Your task to perform on an android device: Go to calendar. Show me events next week Image 0: 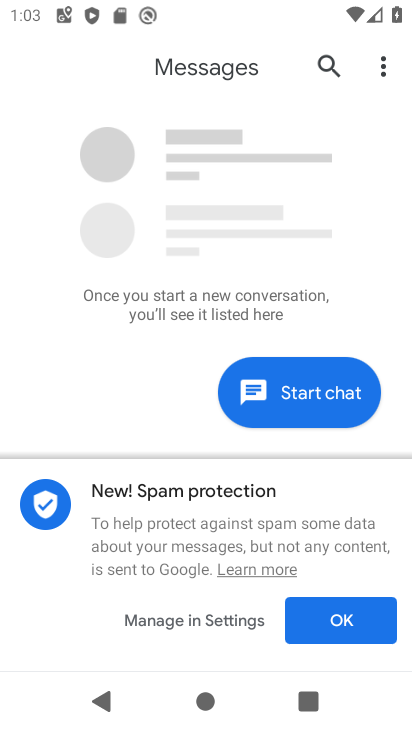
Step 0: press home button
Your task to perform on an android device: Go to calendar. Show me events next week Image 1: 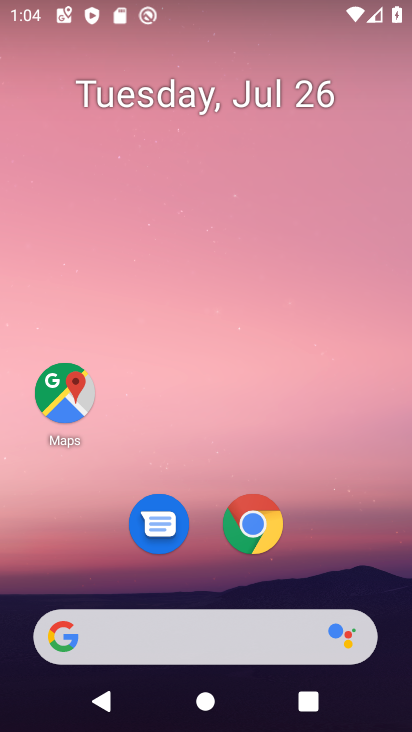
Step 1: drag from (331, 500) to (336, 44)
Your task to perform on an android device: Go to calendar. Show me events next week Image 2: 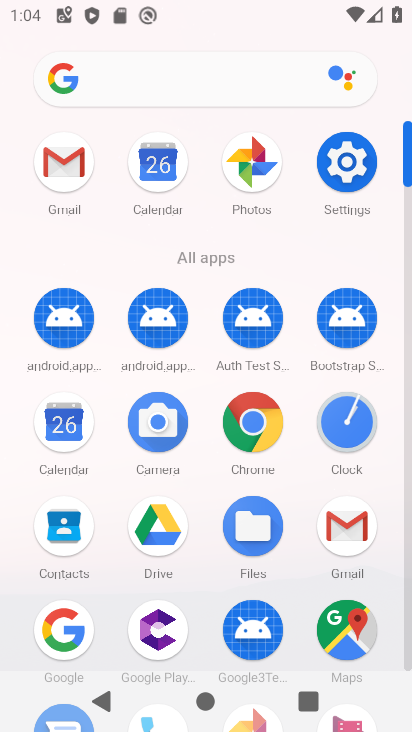
Step 2: click (165, 168)
Your task to perform on an android device: Go to calendar. Show me events next week Image 3: 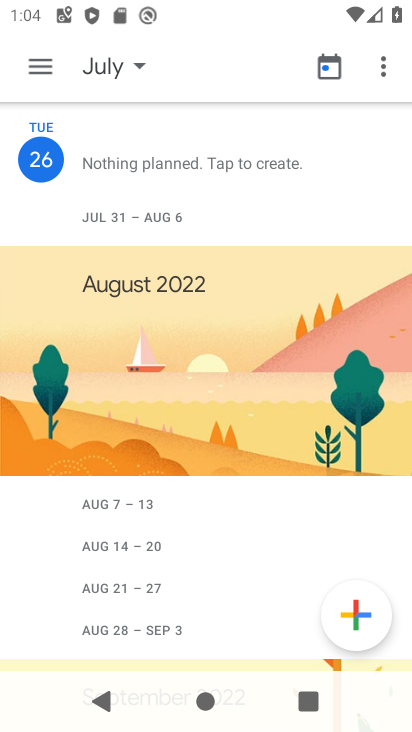
Step 3: click (44, 65)
Your task to perform on an android device: Go to calendar. Show me events next week Image 4: 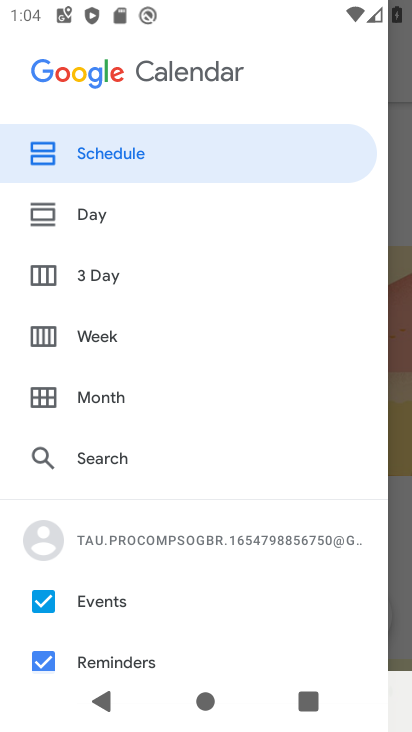
Step 4: click (47, 334)
Your task to perform on an android device: Go to calendar. Show me events next week Image 5: 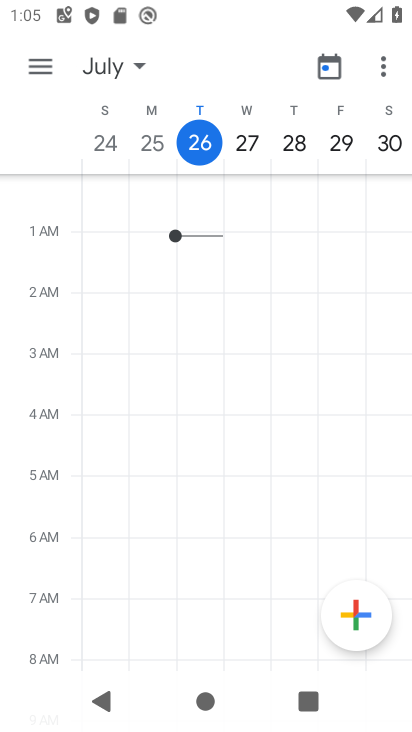
Step 5: task complete